Your task to perform on an android device: turn pop-ups on in chrome Image 0: 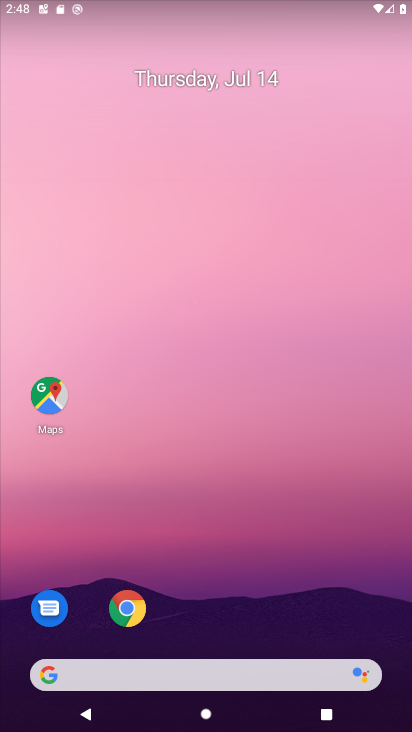
Step 0: drag from (267, 267) to (292, 99)
Your task to perform on an android device: turn pop-ups on in chrome Image 1: 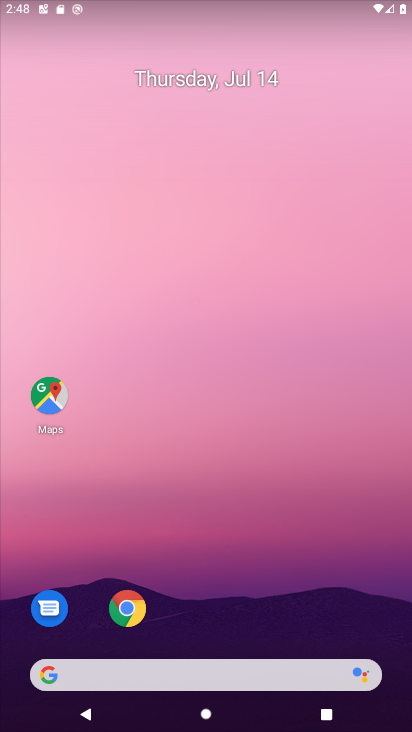
Step 1: drag from (309, 527) to (323, 0)
Your task to perform on an android device: turn pop-ups on in chrome Image 2: 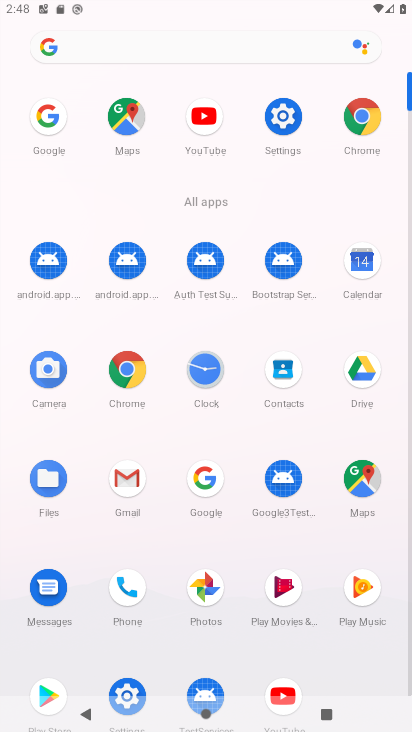
Step 2: click (118, 366)
Your task to perform on an android device: turn pop-ups on in chrome Image 3: 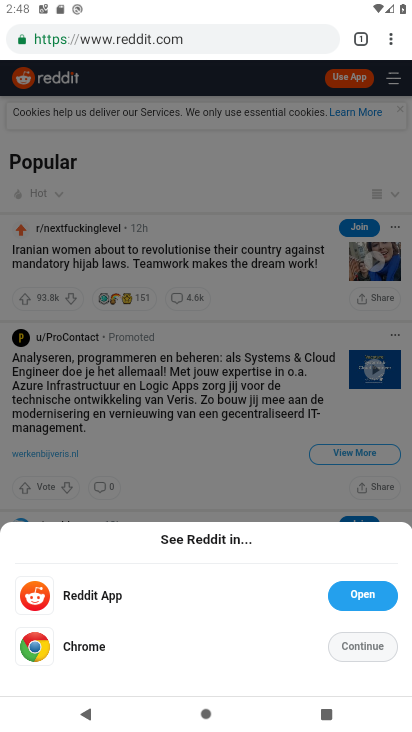
Step 3: drag from (389, 37) to (264, 466)
Your task to perform on an android device: turn pop-ups on in chrome Image 4: 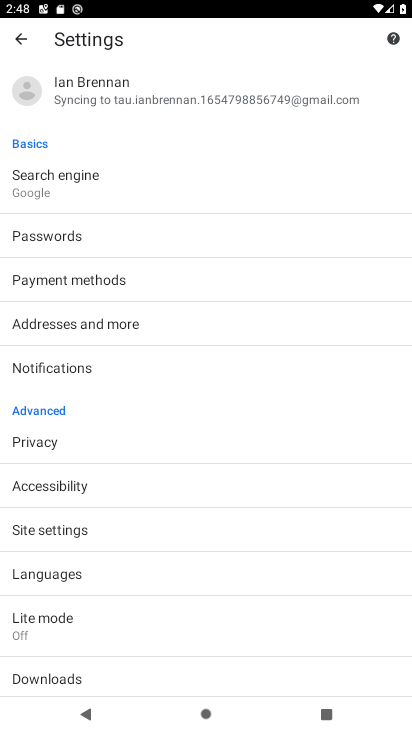
Step 4: drag from (154, 510) to (154, 240)
Your task to perform on an android device: turn pop-ups on in chrome Image 5: 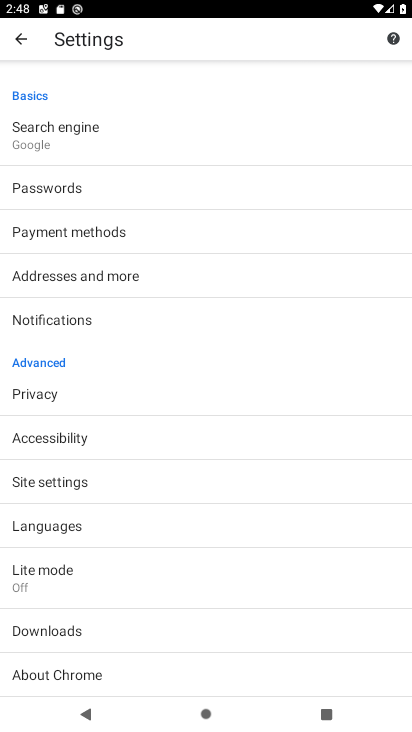
Step 5: click (62, 476)
Your task to perform on an android device: turn pop-ups on in chrome Image 6: 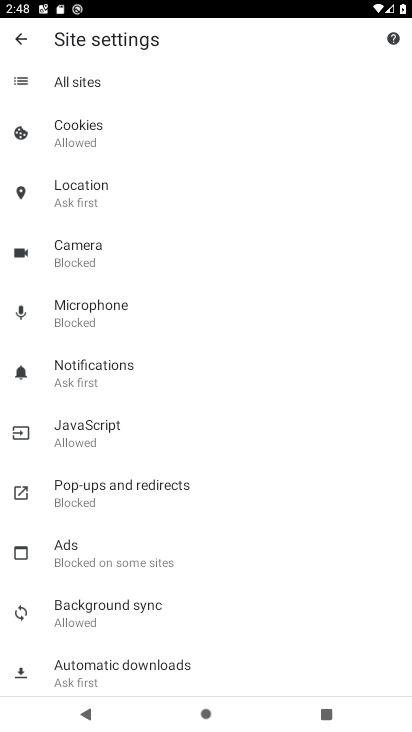
Step 6: click (113, 479)
Your task to perform on an android device: turn pop-ups on in chrome Image 7: 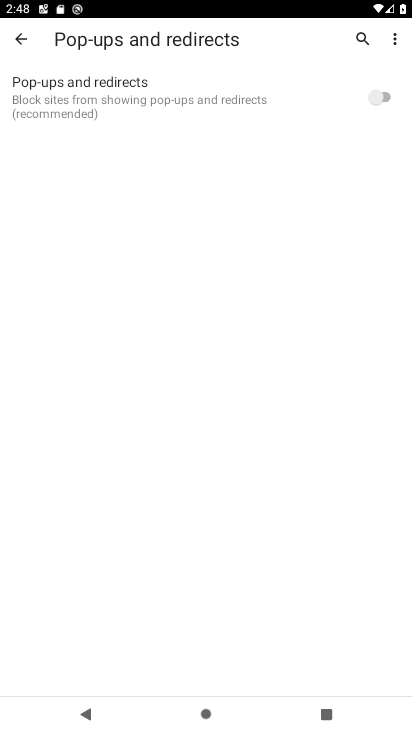
Step 7: click (358, 95)
Your task to perform on an android device: turn pop-ups on in chrome Image 8: 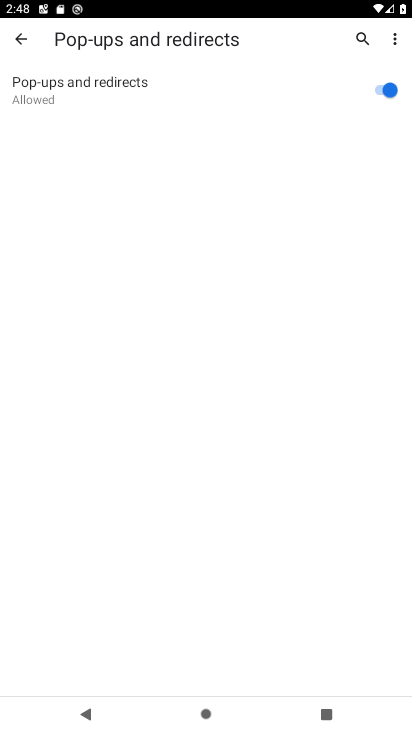
Step 8: task complete